Your task to perform on an android device: change timer sound Image 0: 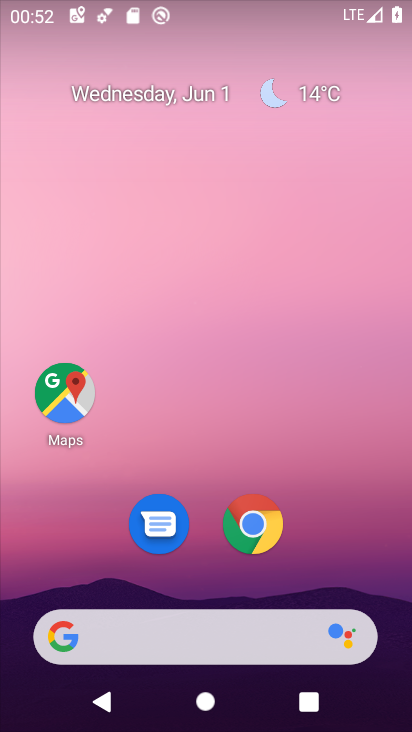
Step 0: drag from (321, 551) to (307, 37)
Your task to perform on an android device: change timer sound Image 1: 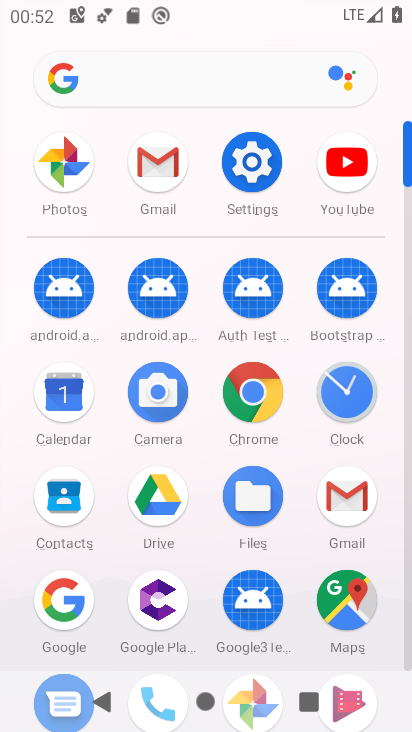
Step 1: click (342, 369)
Your task to perform on an android device: change timer sound Image 2: 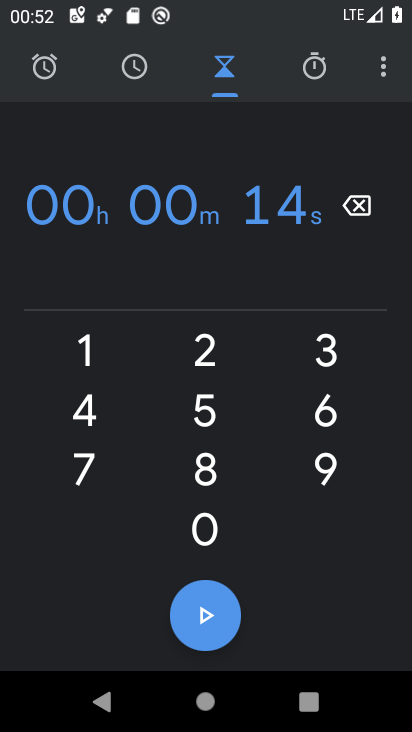
Step 2: click (134, 76)
Your task to perform on an android device: change timer sound Image 3: 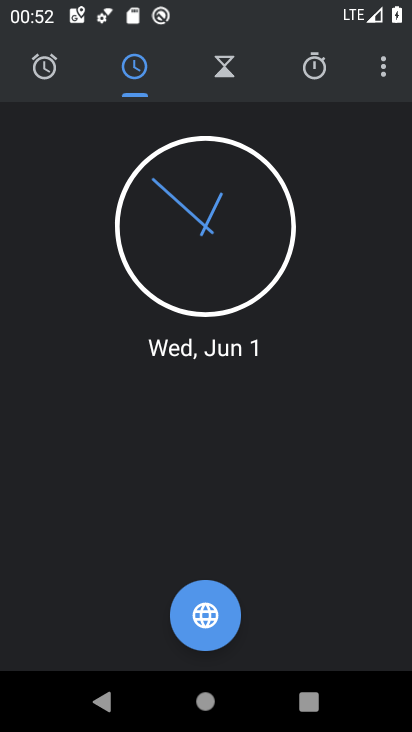
Step 3: click (380, 73)
Your task to perform on an android device: change timer sound Image 4: 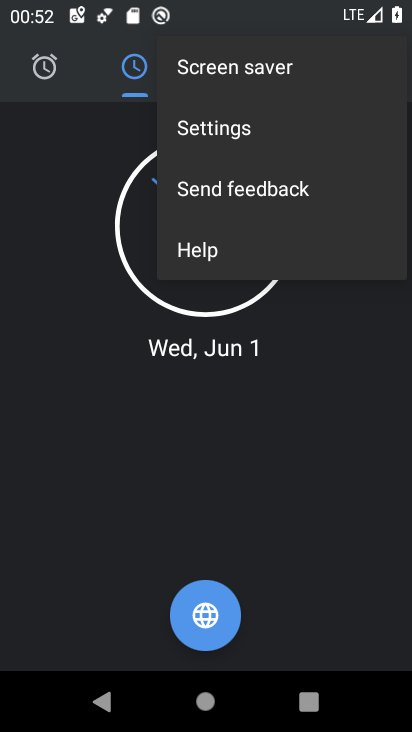
Step 4: click (306, 122)
Your task to perform on an android device: change timer sound Image 5: 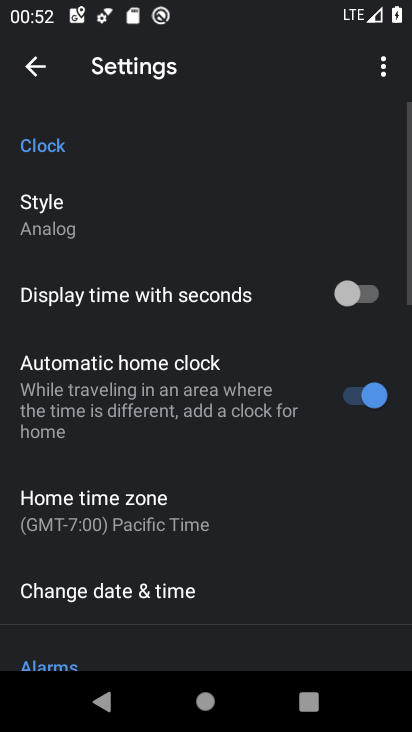
Step 5: drag from (216, 512) to (237, 65)
Your task to perform on an android device: change timer sound Image 6: 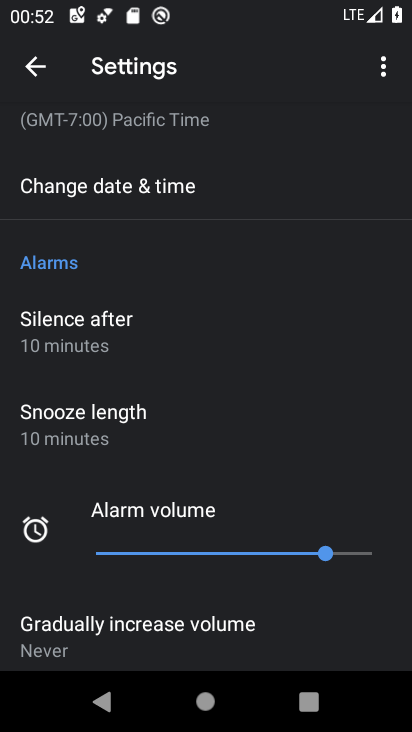
Step 6: drag from (195, 390) to (231, 36)
Your task to perform on an android device: change timer sound Image 7: 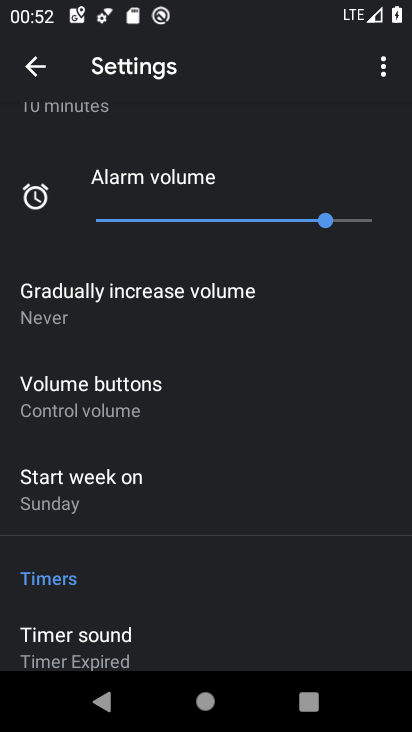
Step 7: drag from (181, 362) to (221, 83)
Your task to perform on an android device: change timer sound Image 8: 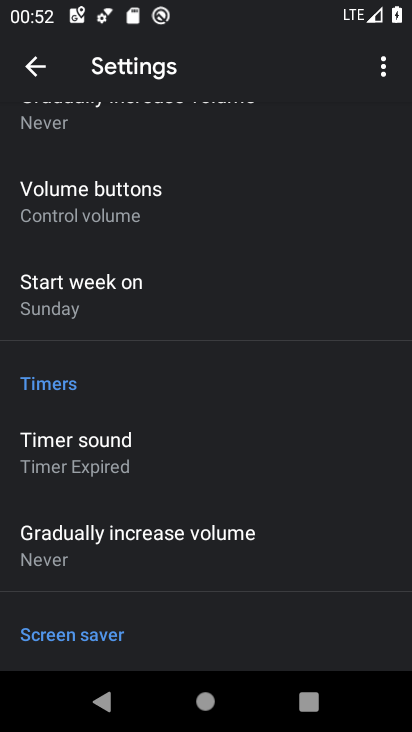
Step 8: click (99, 448)
Your task to perform on an android device: change timer sound Image 9: 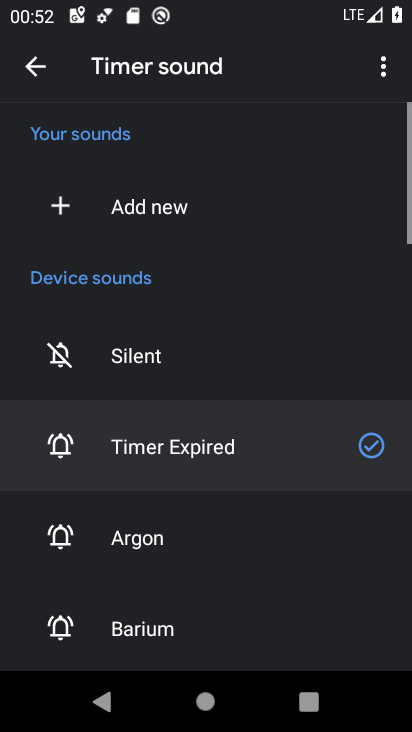
Step 9: click (127, 540)
Your task to perform on an android device: change timer sound Image 10: 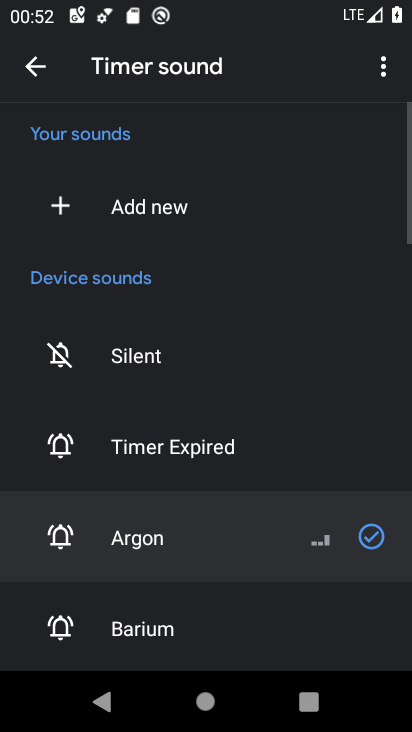
Step 10: task complete